Your task to perform on an android device: change timer sound Image 0: 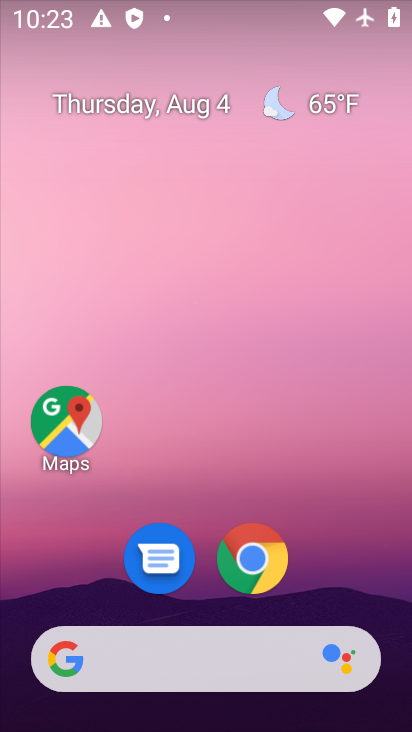
Step 0: drag from (328, 568) to (364, 121)
Your task to perform on an android device: change timer sound Image 1: 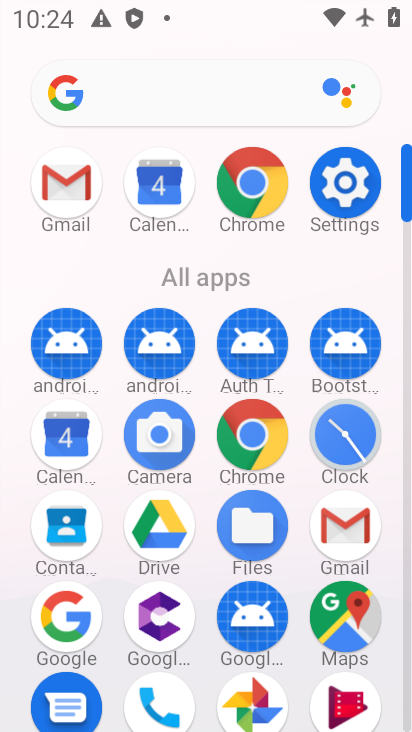
Step 1: drag from (193, 587) to (213, 292)
Your task to perform on an android device: change timer sound Image 2: 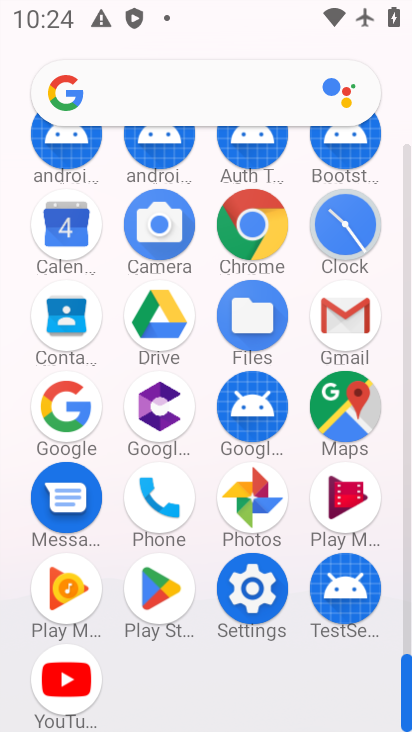
Step 2: click (259, 609)
Your task to perform on an android device: change timer sound Image 3: 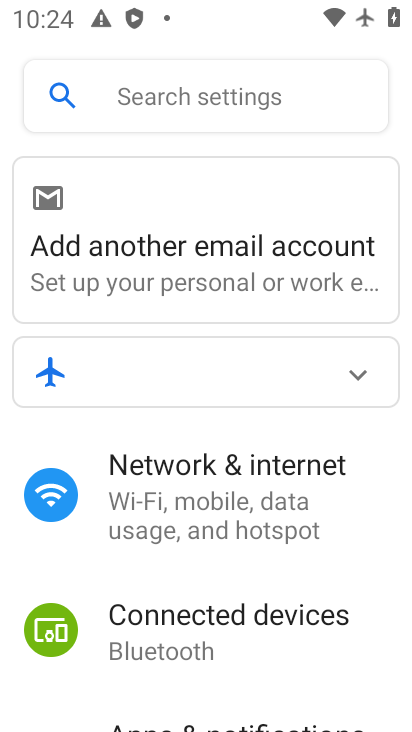
Step 3: press home button
Your task to perform on an android device: change timer sound Image 4: 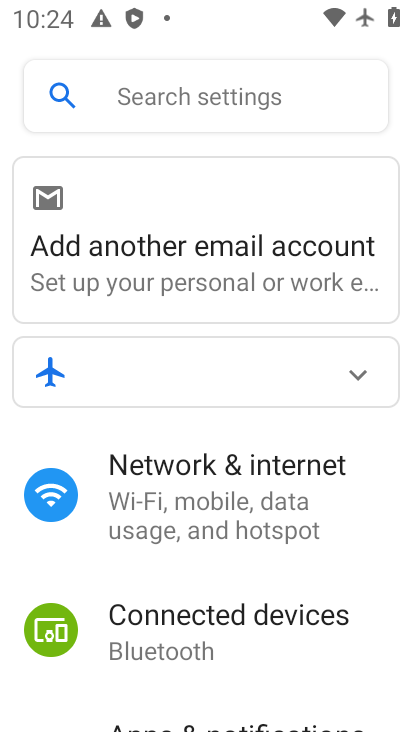
Step 4: press home button
Your task to perform on an android device: change timer sound Image 5: 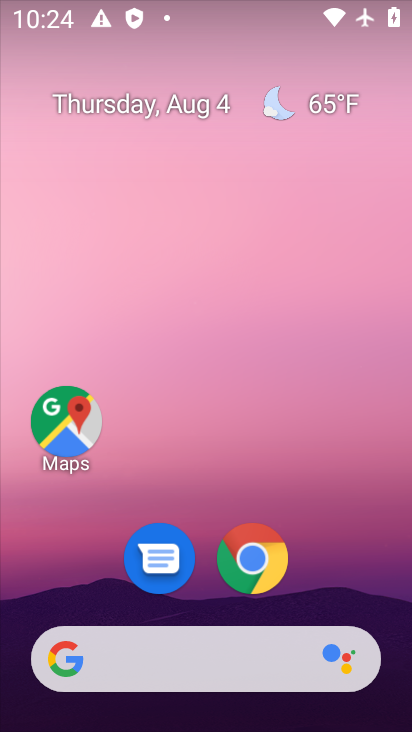
Step 5: drag from (369, 567) to (410, 158)
Your task to perform on an android device: change timer sound Image 6: 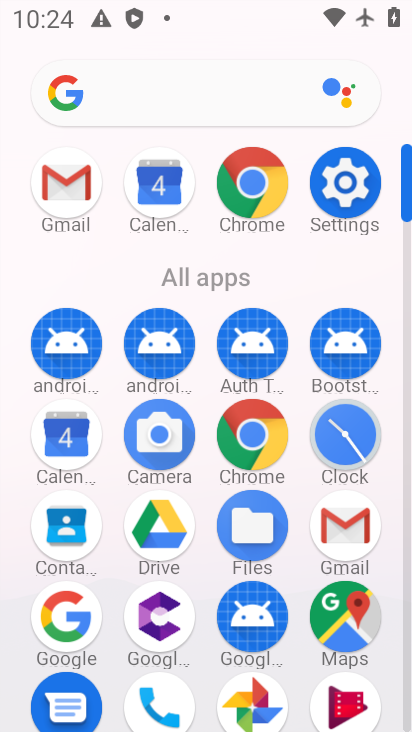
Step 6: click (339, 428)
Your task to perform on an android device: change timer sound Image 7: 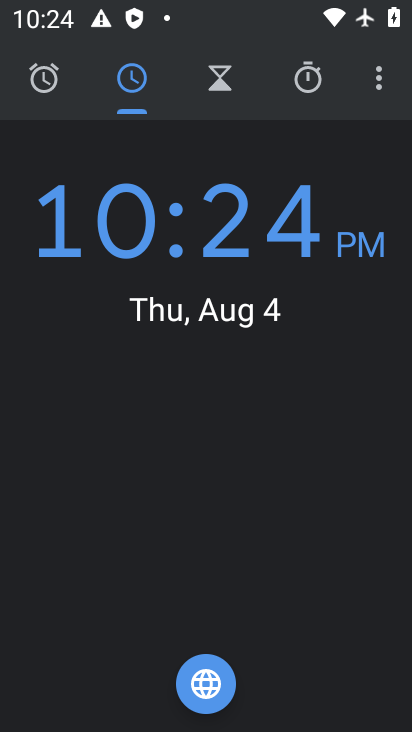
Step 7: click (388, 74)
Your task to perform on an android device: change timer sound Image 8: 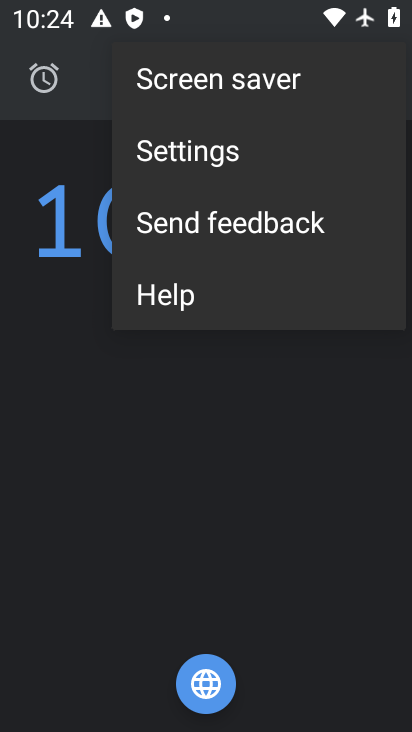
Step 8: click (206, 150)
Your task to perform on an android device: change timer sound Image 9: 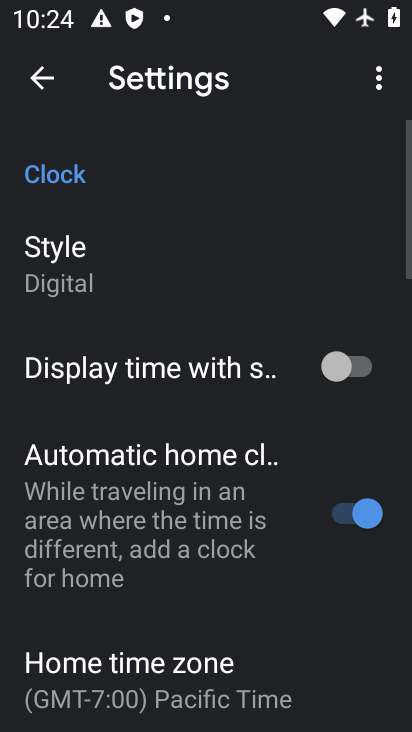
Step 9: drag from (230, 628) to (236, 164)
Your task to perform on an android device: change timer sound Image 10: 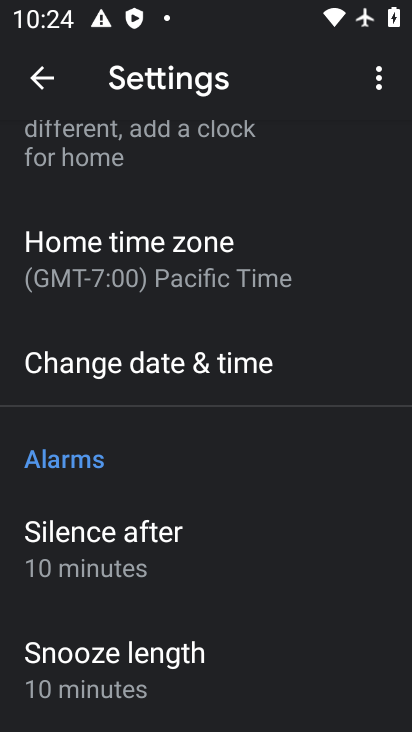
Step 10: drag from (231, 488) to (242, 174)
Your task to perform on an android device: change timer sound Image 11: 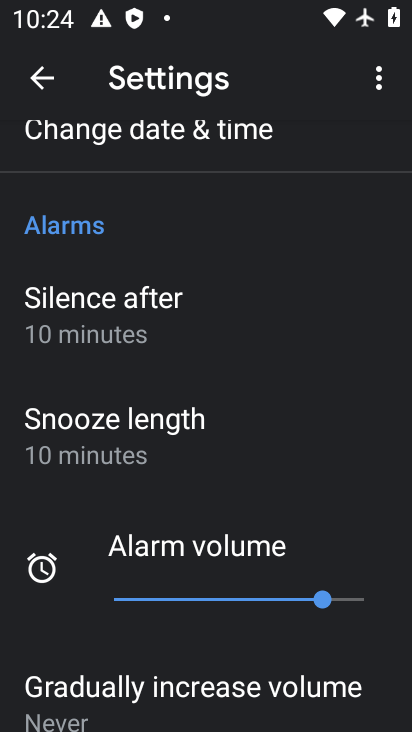
Step 11: drag from (357, 441) to (400, 138)
Your task to perform on an android device: change timer sound Image 12: 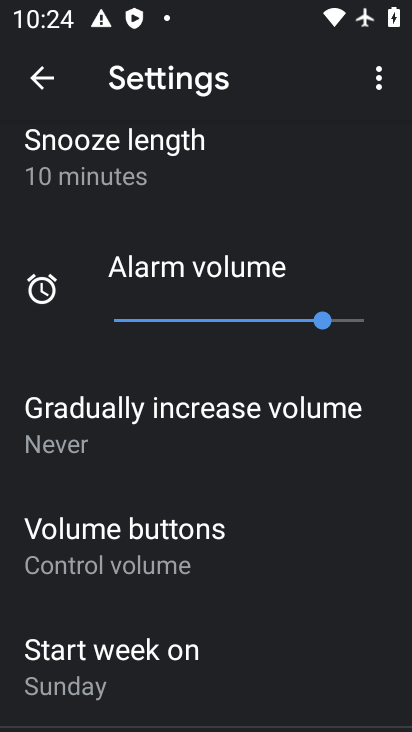
Step 12: drag from (264, 604) to (352, 225)
Your task to perform on an android device: change timer sound Image 13: 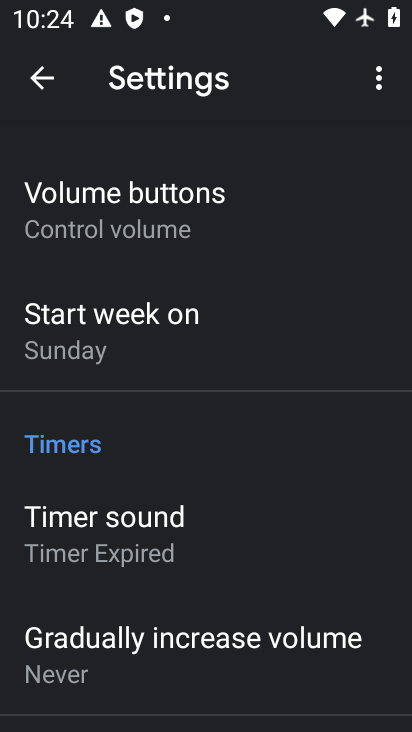
Step 13: click (146, 559)
Your task to perform on an android device: change timer sound Image 14: 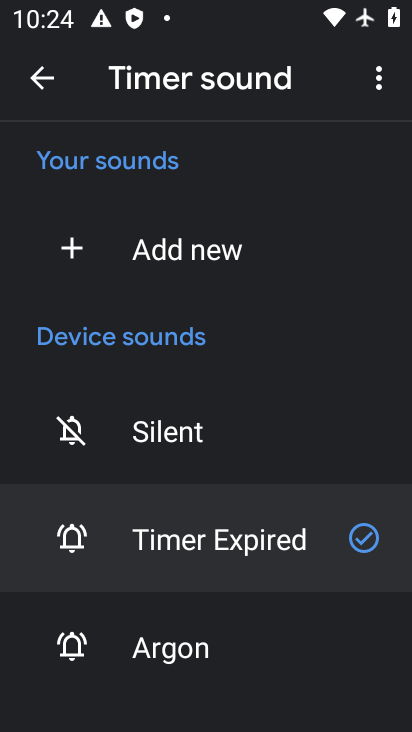
Step 14: click (157, 639)
Your task to perform on an android device: change timer sound Image 15: 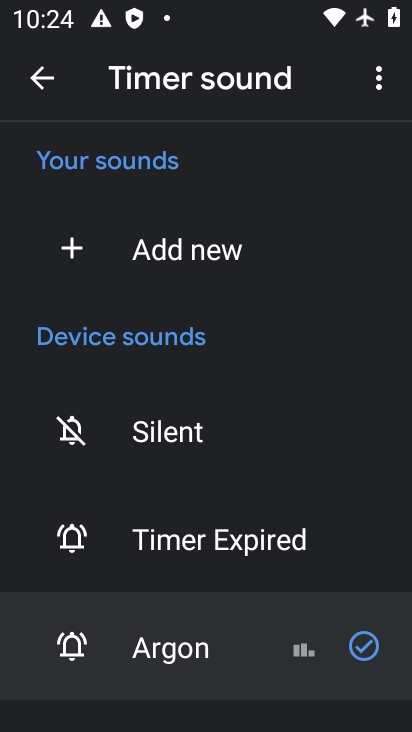
Step 15: task complete